Your task to perform on an android device: Open wifi settings Image 0: 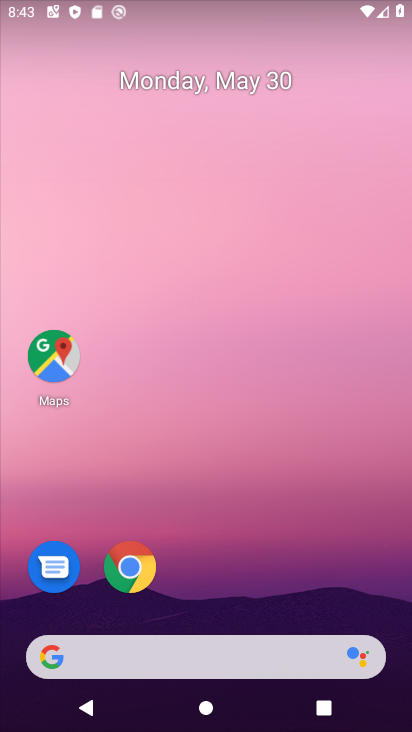
Step 0: drag from (229, 607) to (204, 252)
Your task to perform on an android device: Open wifi settings Image 1: 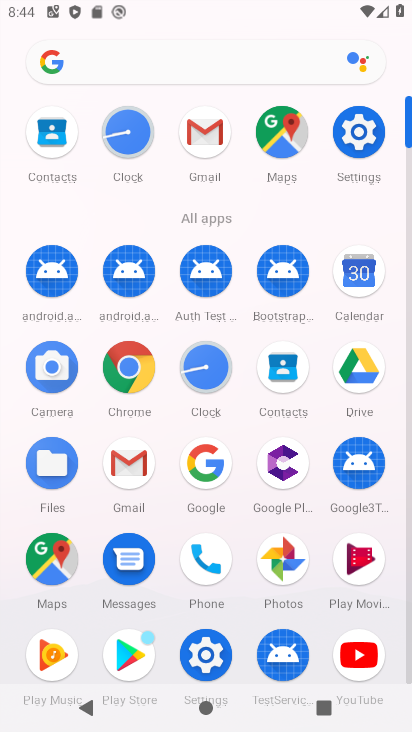
Step 1: click (367, 107)
Your task to perform on an android device: Open wifi settings Image 2: 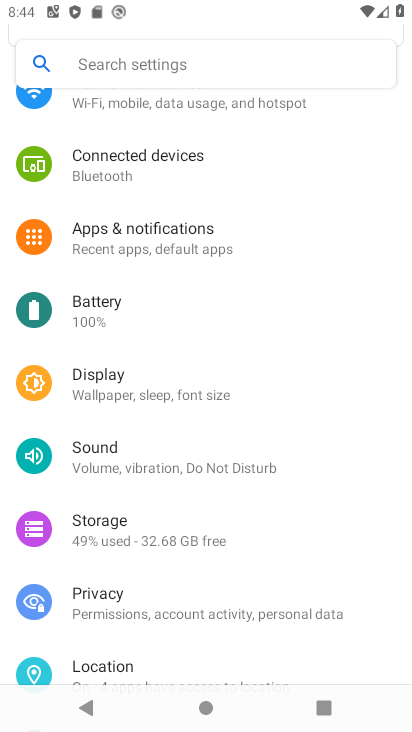
Step 2: drag from (212, 142) to (213, 470)
Your task to perform on an android device: Open wifi settings Image 3: 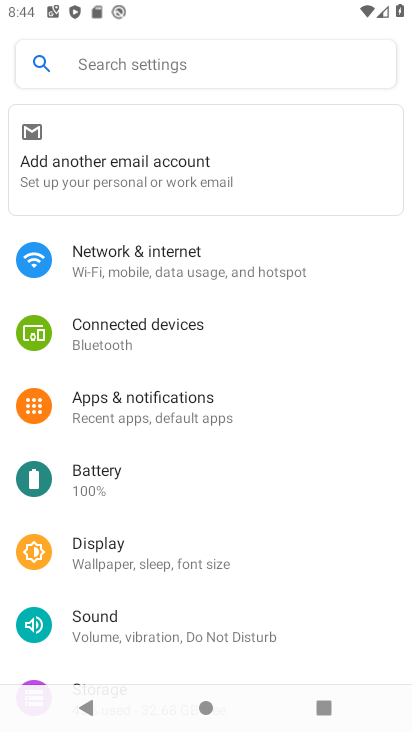
Step 3: click (143, 251)
Your task to perform on an android device: Open wifi settings Image 4: 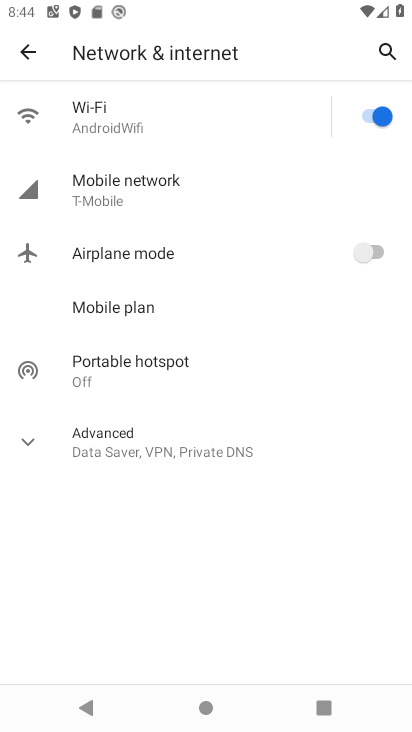
Step 4: click (90, 108)
Your task to perform on an android device: Open wifi settings Image 5: 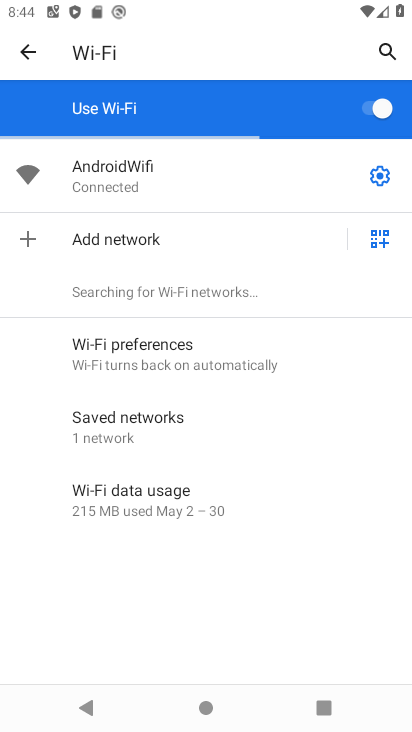
Step 5: task complete